Your task to perform on an android device: Show me productivity apps on the Play Store Image 0: 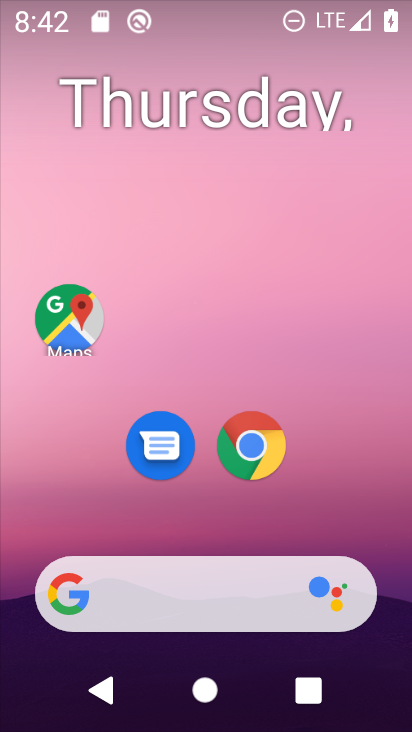
Step 0: drag from (392, 619) to (297, 32)
Your task to perform on an android device: Show me productivity apps on the Play Store Image 1: 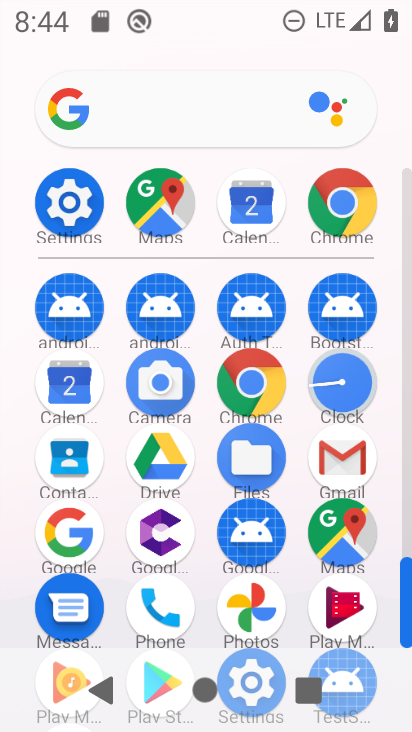
Step 1: drag from (198, 609) to (206, 181)
Your task to perform on an android device: Show me productivity apps on the Play Store Image 2: 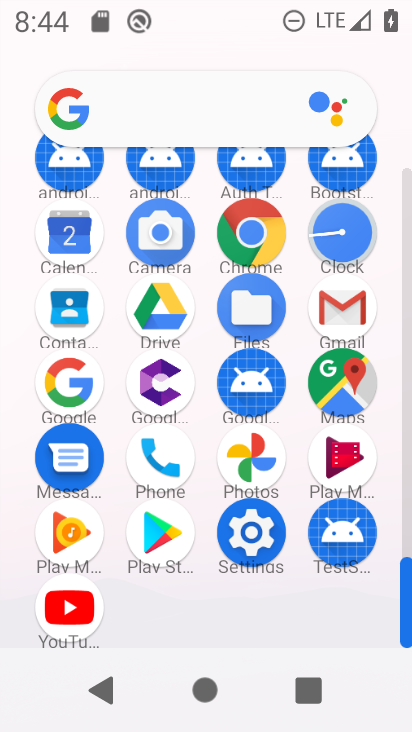
Step 2: click (183, 526)
Your task to perform on an android device: Show me productivity apps on the Play Store Image 3: 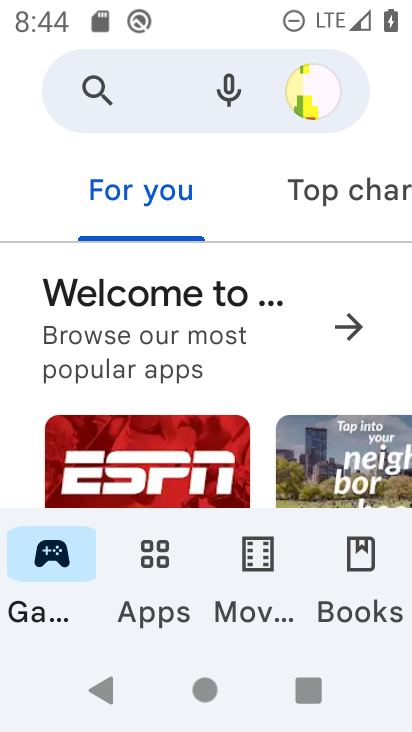
Step 3: task complete